Your task to perform on an android device: toggle notification dots Image 0: 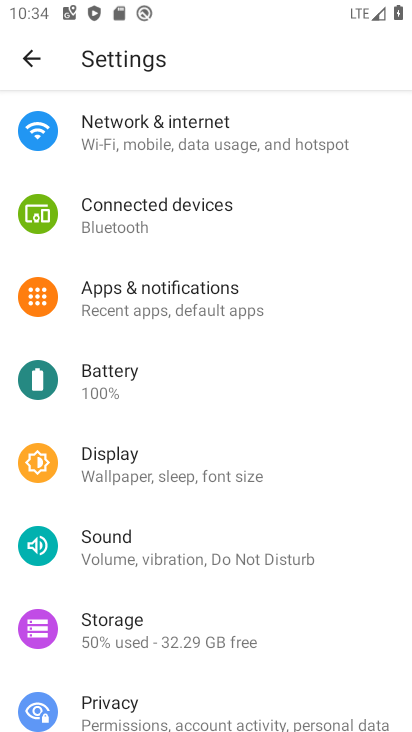
Step 0: click (138, 291)
Your task to perform on an android device: toggle notification dots Image 1: 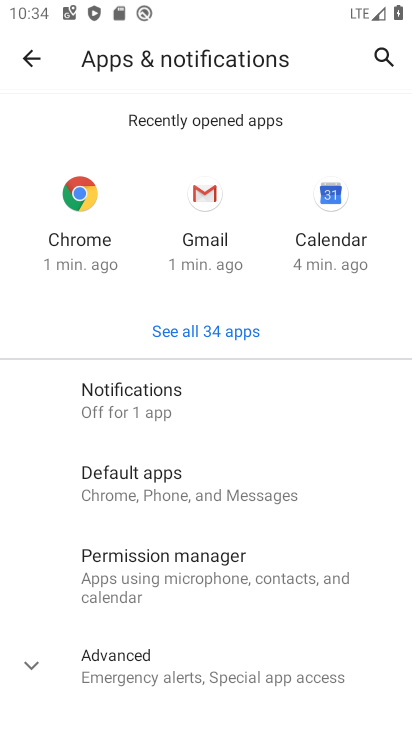
Step 1: click (136, 387)
Your task to perform on an android device: toggle notification dots Image 2: 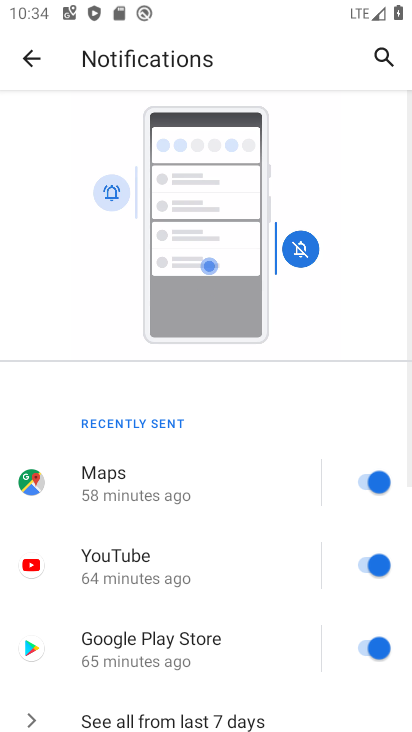
Step 2: drag from (294, 546) to (327, 76)
Your task to perform on an android device: toggle notification dots Image 3: 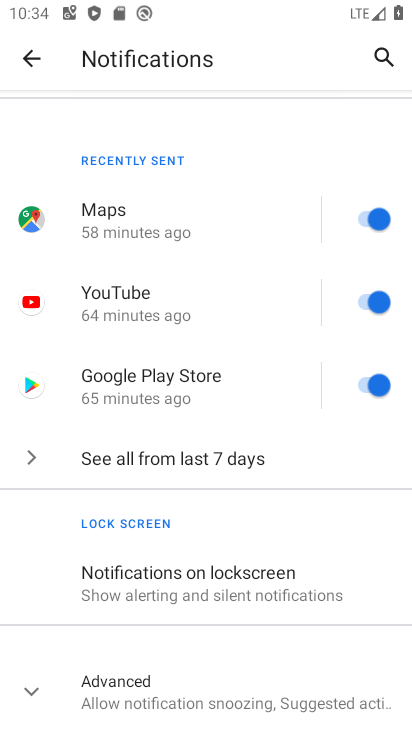
Step 3: click (194, 687)
Your task to perform on an android device: toggle notification dots Image 4: 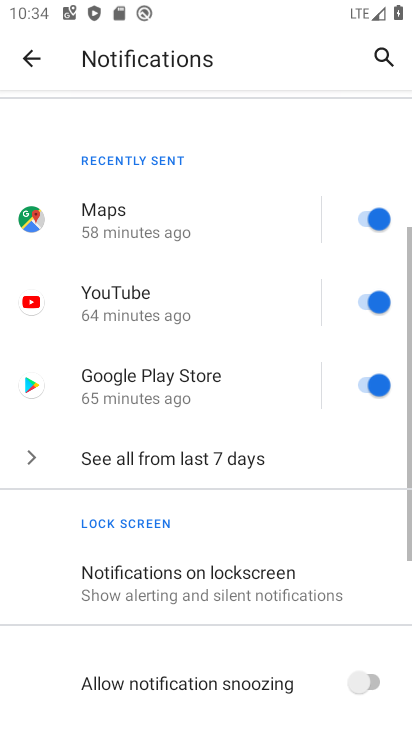
Step 4: drag from (282, 647) to (234, 169)
Your task to perform on an android device: toggle notification dots Image 5: 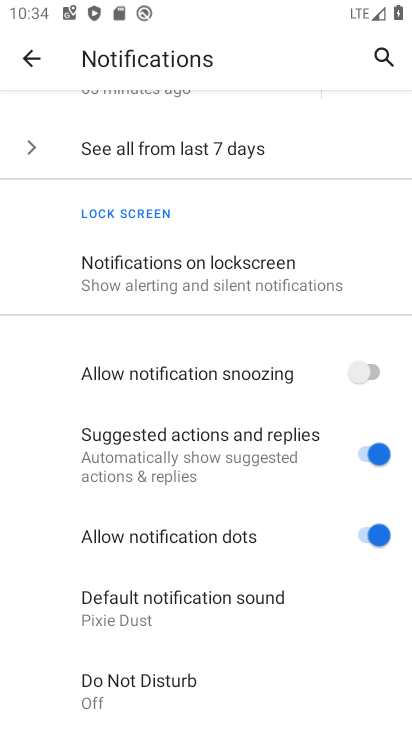
Step 5: click (279, 543)
Your task to perform on an android device: toggle notification dots Image 6: 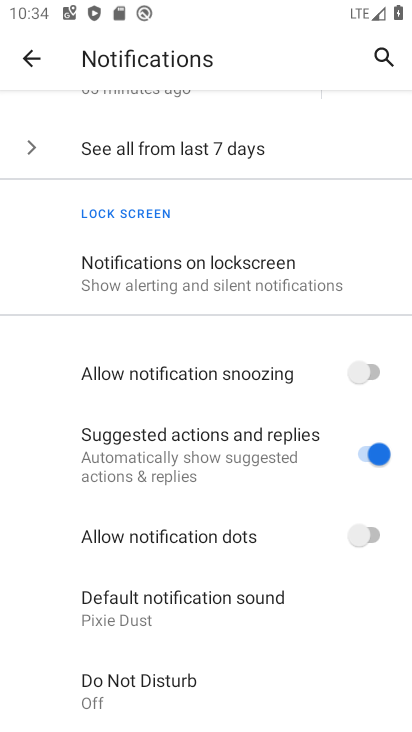
Step 6: task complete